Your task to perform on an android device: Show me popular videos on Youtube Image 0: 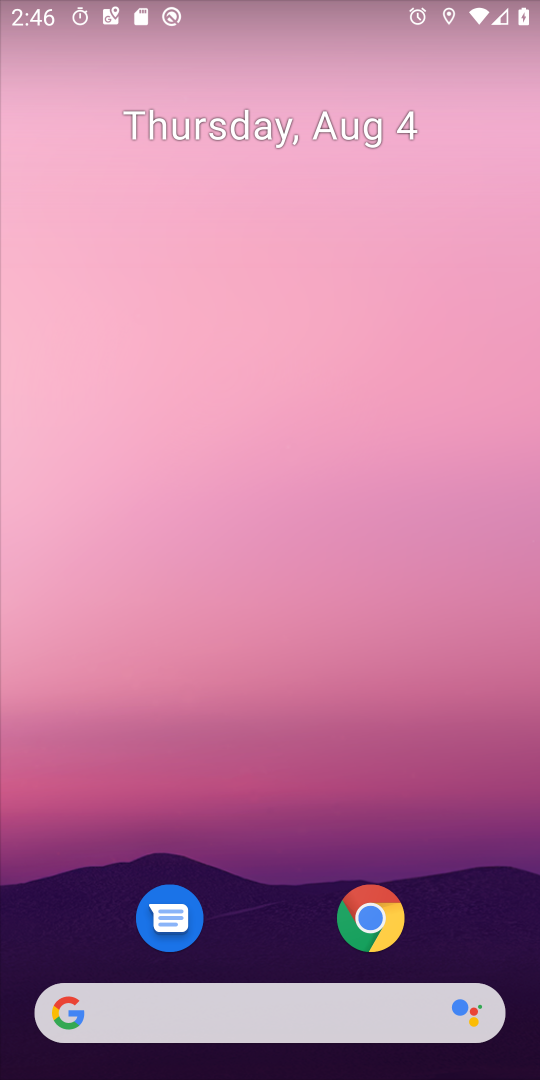
Step 0: drag from (274, 816) to (223, 248)
Your task to perform on an android device: Show me popular videos on Youtube Image 1: 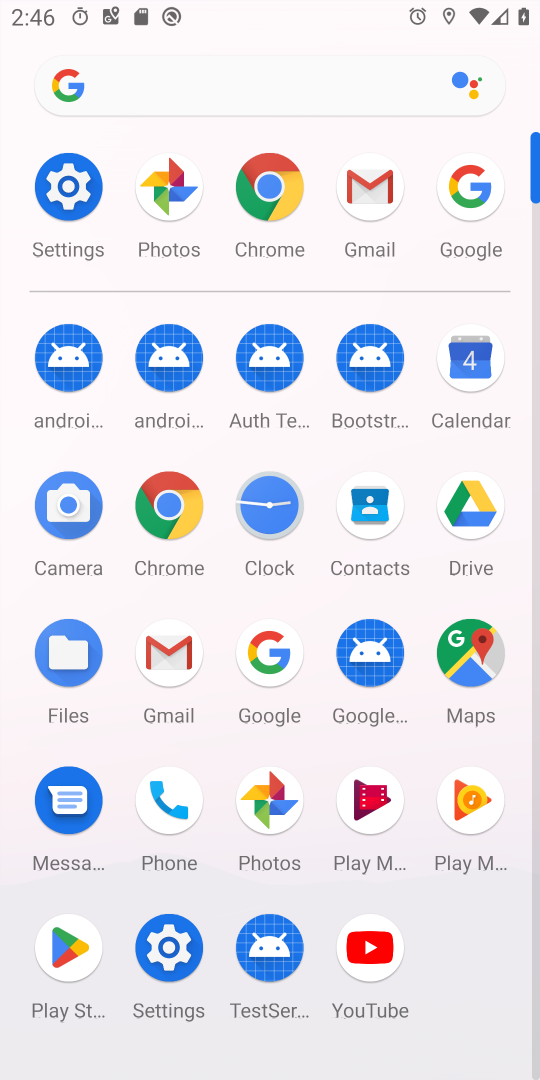
Step 1: click (354, 931)
Your task to perform on an android device: Show me popular videos on Youtube Image 2: 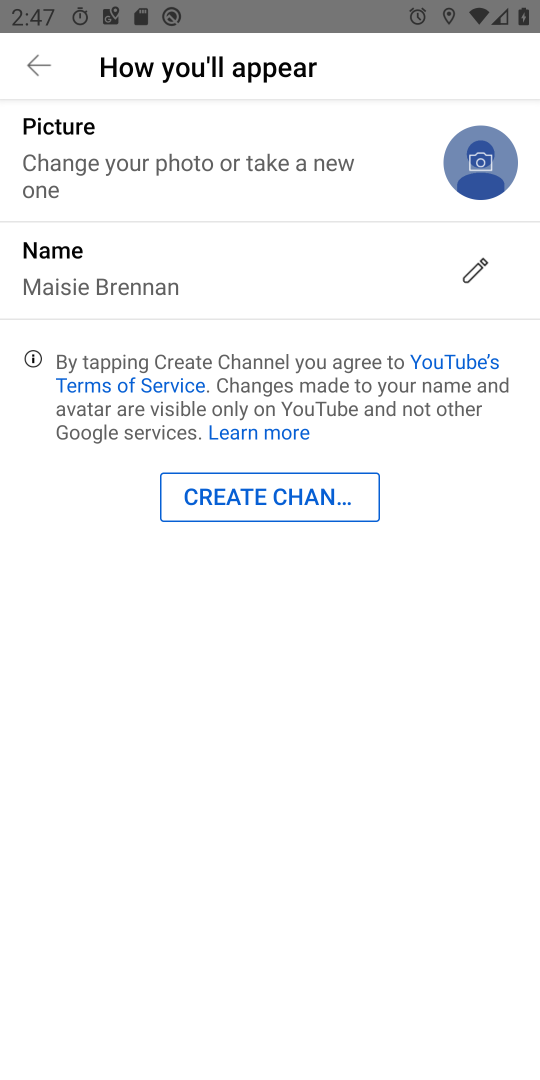
Step 2: click (33, 50)
Your task to perform on an android device: Show me popular videos on Youtube Image 3: 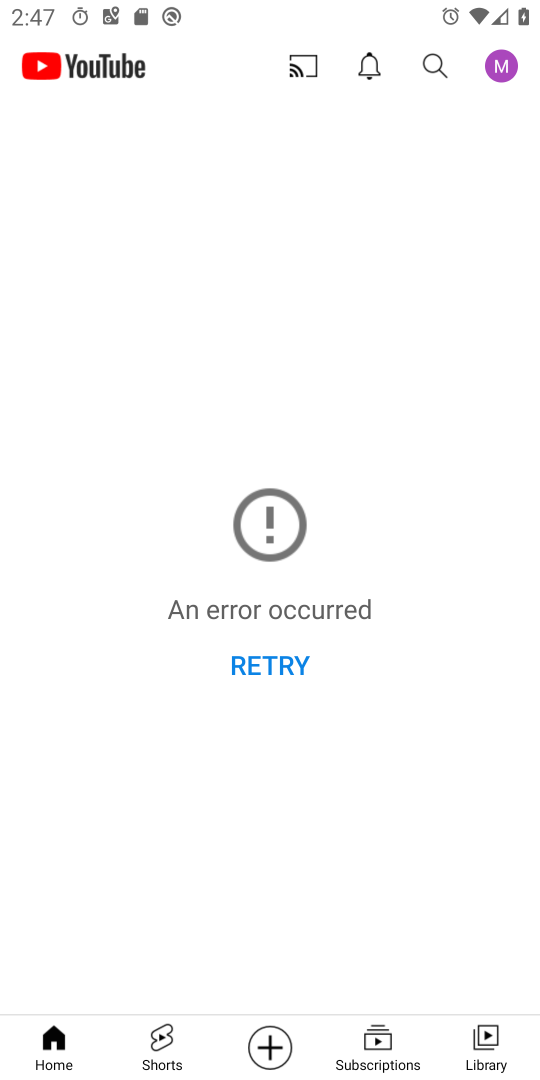
Step 3: click (426, 61)
Your task to perform on an android device: Show me popular videos on Youtube Image 4: 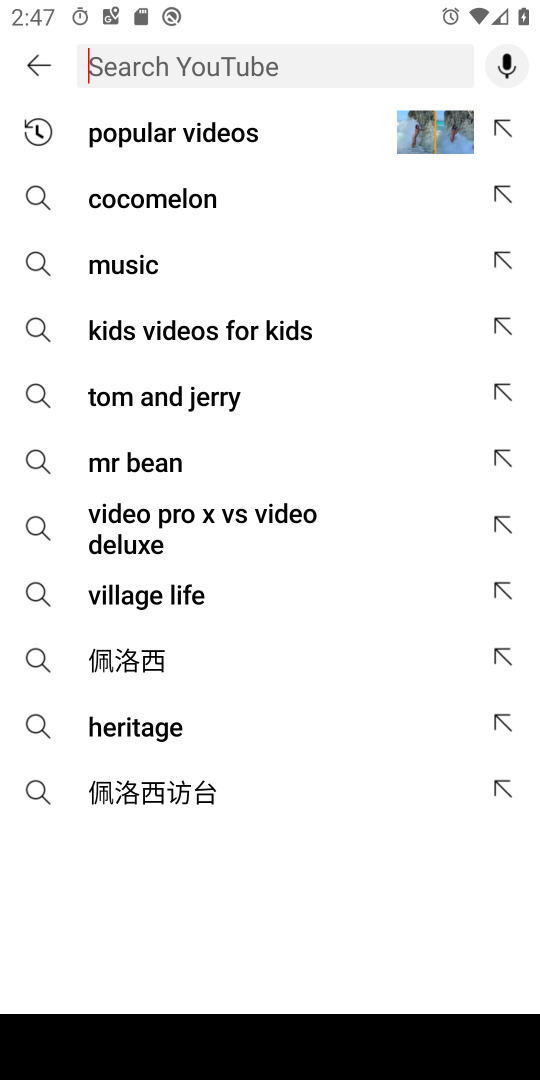
Step 4: click (239, 117)
Your task to perform on an android device: Show me popular videos on Youtube Image 5: 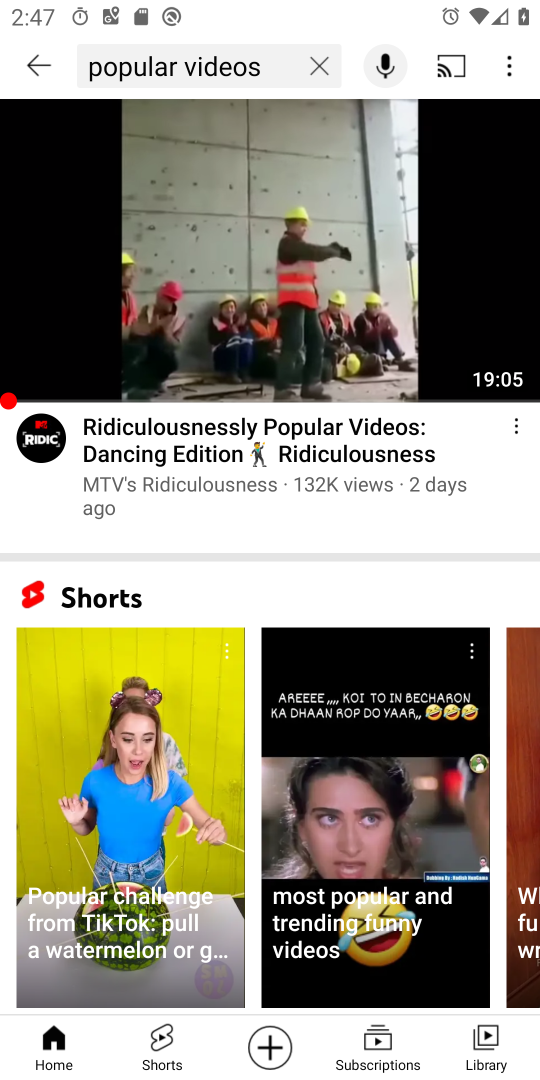
Step 5: task complete